Your task to perform on an android device: Look up the best rated kitchen knives on Amazon. Image 0: 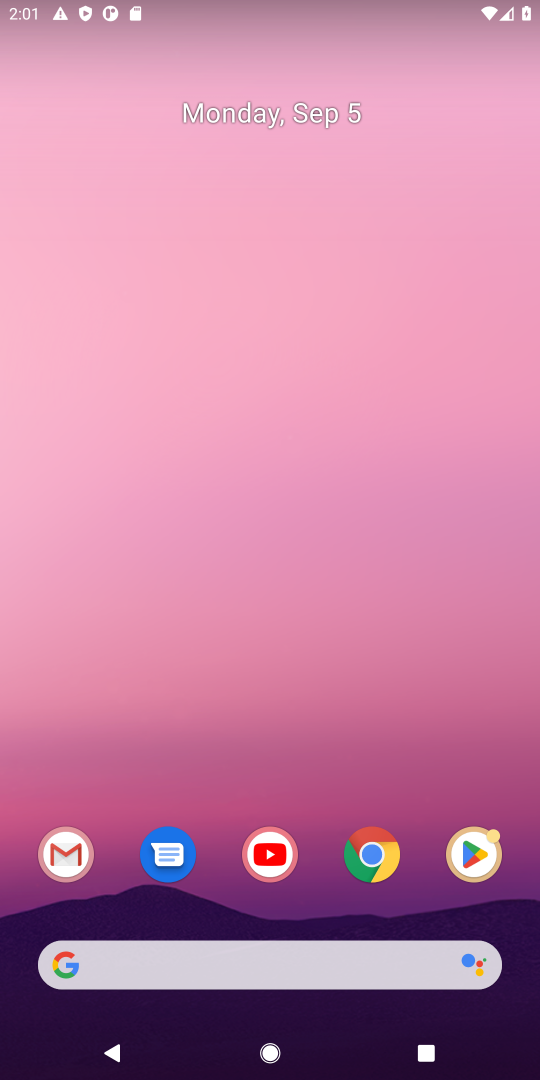
Step 0: click (359, 967)
Your task to perform on an android device: Look up the best rated kitchen knives on Amazon. Image 1: 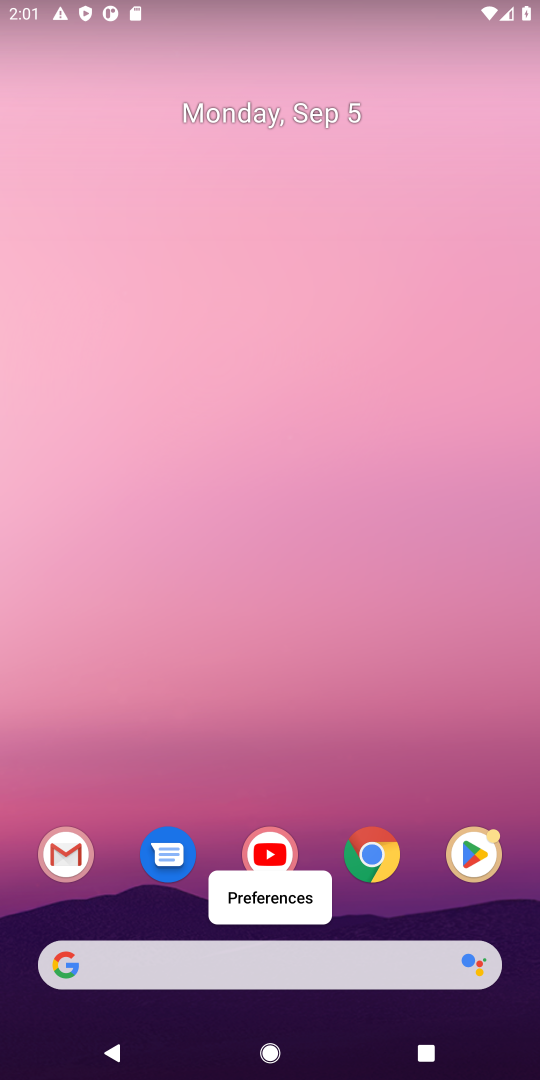
Step 1: click (124, 960)
Your task to perform on an android device: Look up the best rated kitchen knives on Amazon. Image 2: 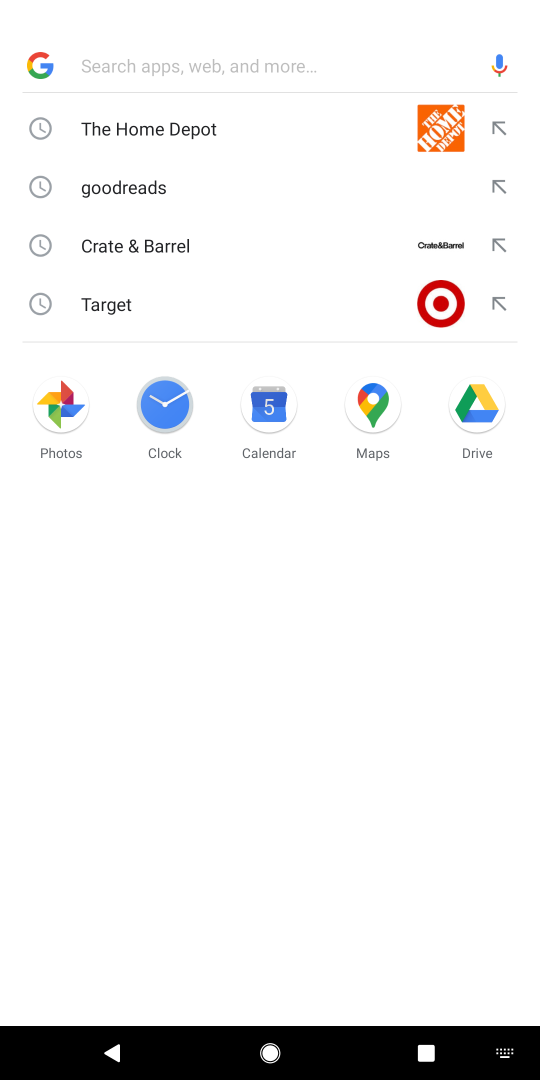
Step 2: type "amazon"
Your task to perform on an android device: Look up the best rated kitchen knives on Amazon. Image 3: 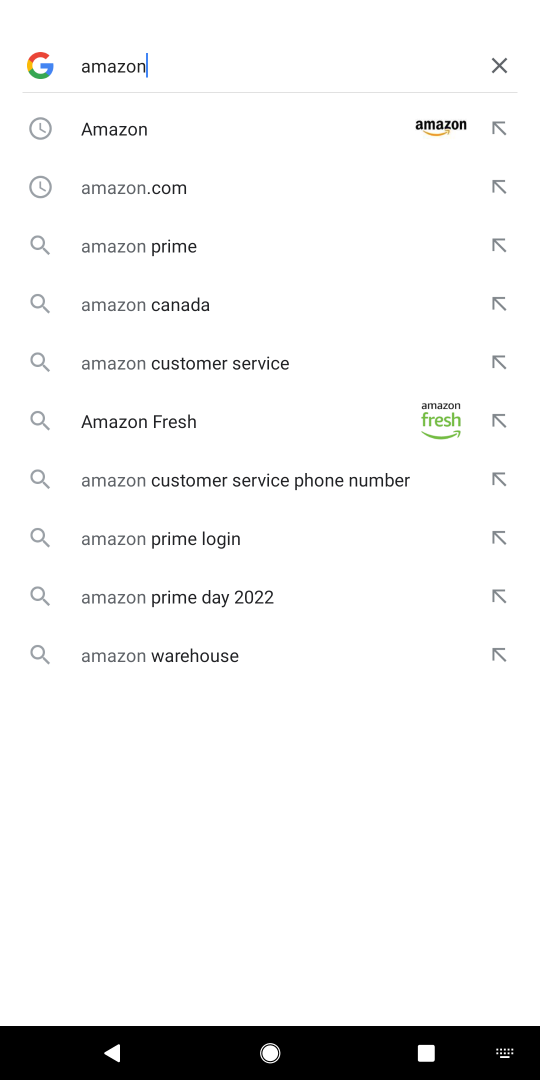
Step 3: press enter
Your task to perform on an android device: Look up the best rated kitchen knives on Amazon. Image 4: 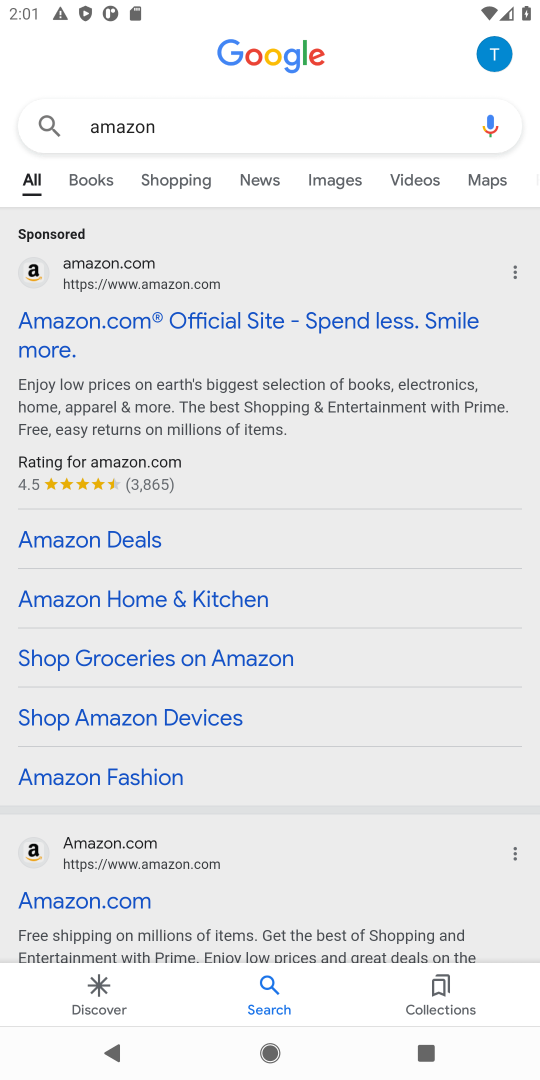
Step 4: click (196, 133)
Your task to perform on an android device: Look up the best rated kitchen knives on Amazon. Image 5: 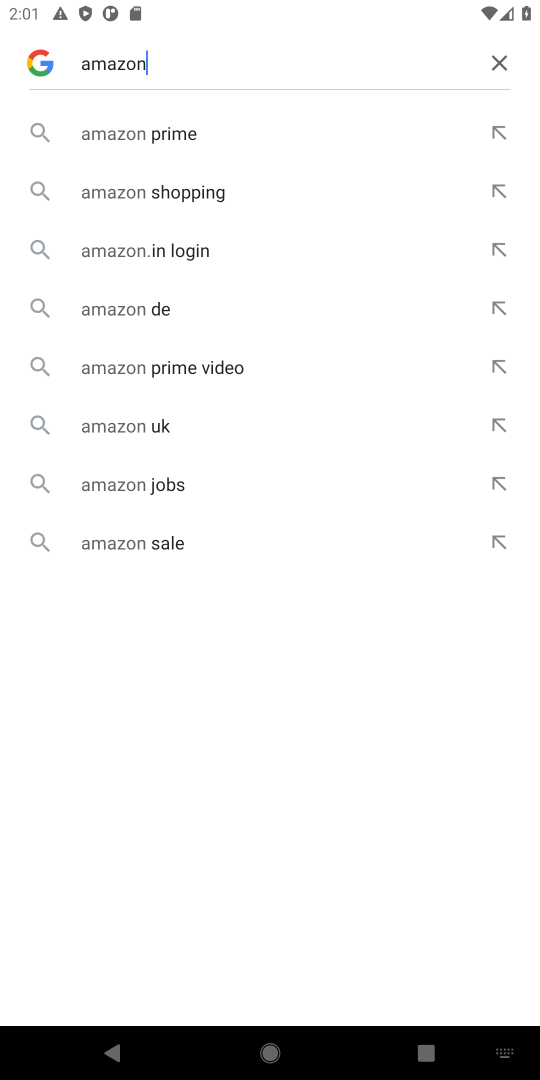
Step 5: click (178, 132)
Your task to perform on an android device: Look up the best rated kitchen knives on Amazon. Image 6: 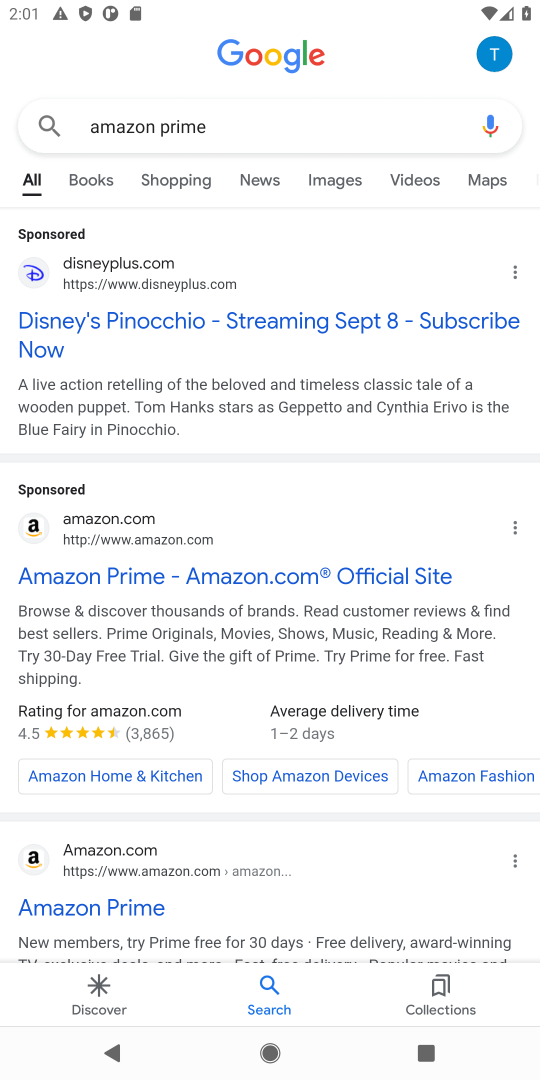
Step 6: click (234, 588)
Your task to perform on an android device: Look up the best rated kitchen knives on Amazon. Image 7: 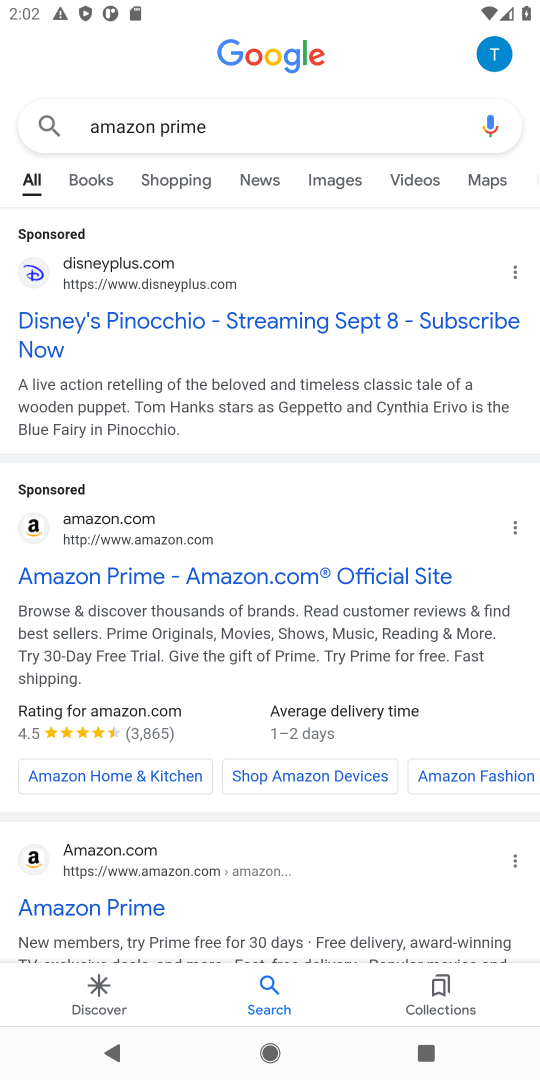
Step 7: click (249, 578)
Your task to perform on an android device: Look up the best rated kitchen knives on Amazon. Image 8: 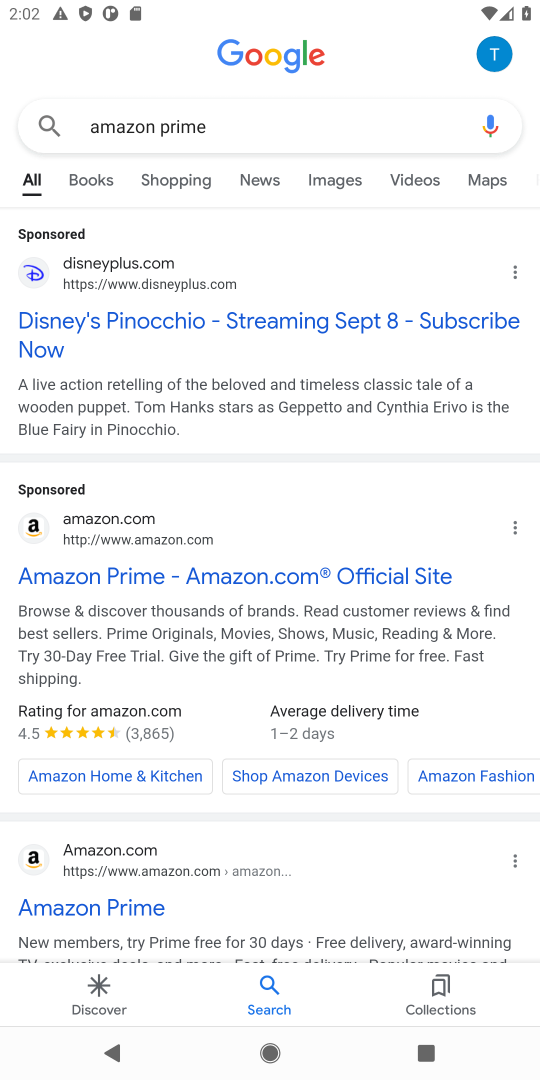
Step 8: click (329, 579)
Your task to perform on an android device: Look up the best rated kitchen knives on Amazon. Image 9: 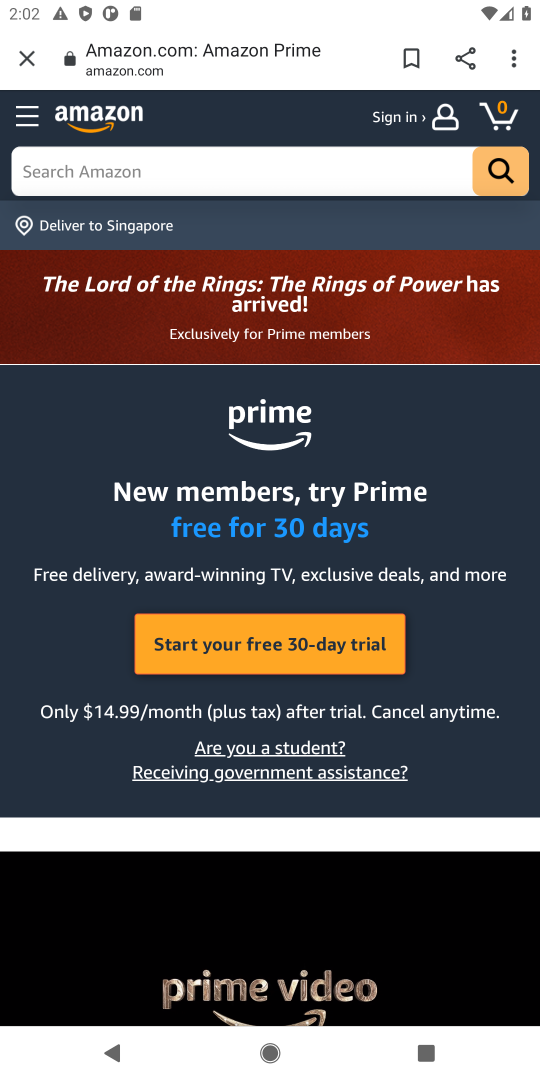
Step 9: click (244, 168)
Your task to perform on an android device: Look up the best rated kitchen knives on Amazon. Image 10: 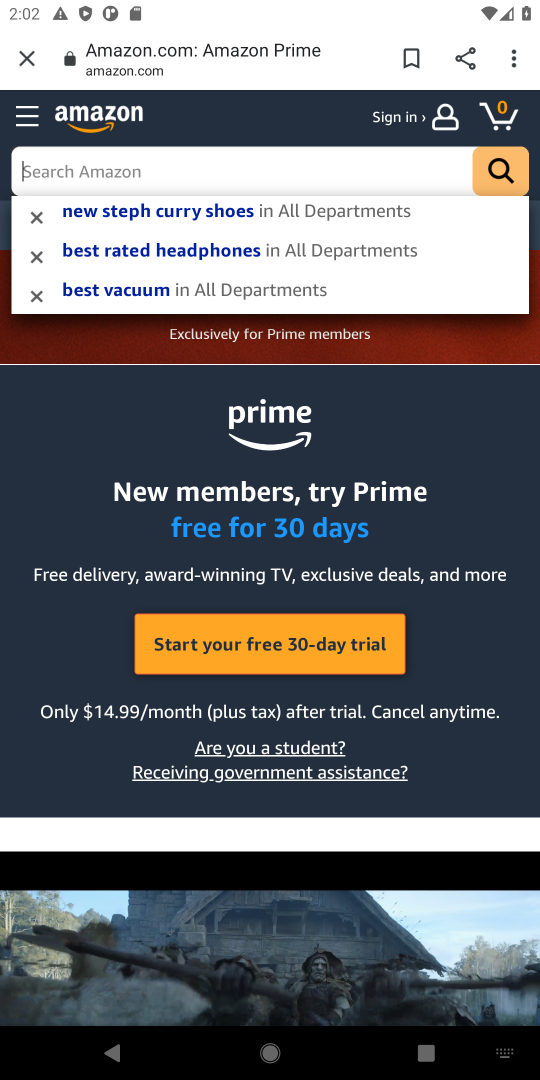
Step 10: type "best rated kitchen knives"
Your task to perform on an android device: Look up the best rated kitchen knives on Amazon. Image 11: 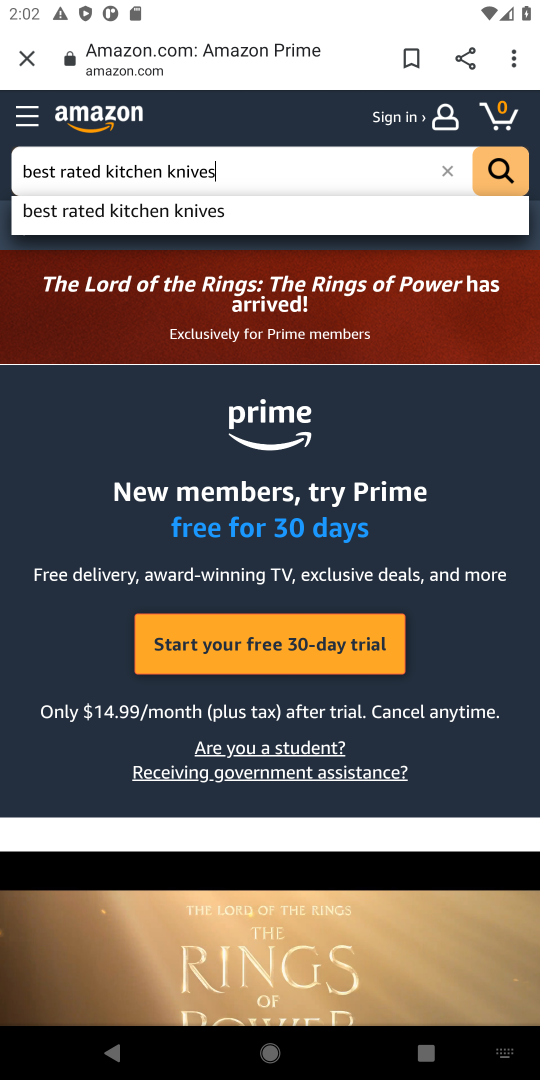
Step 11: click (267, 204)
Your task to perform on an android device: Look up the best rated kitchen knives on Amazon. Image 12: 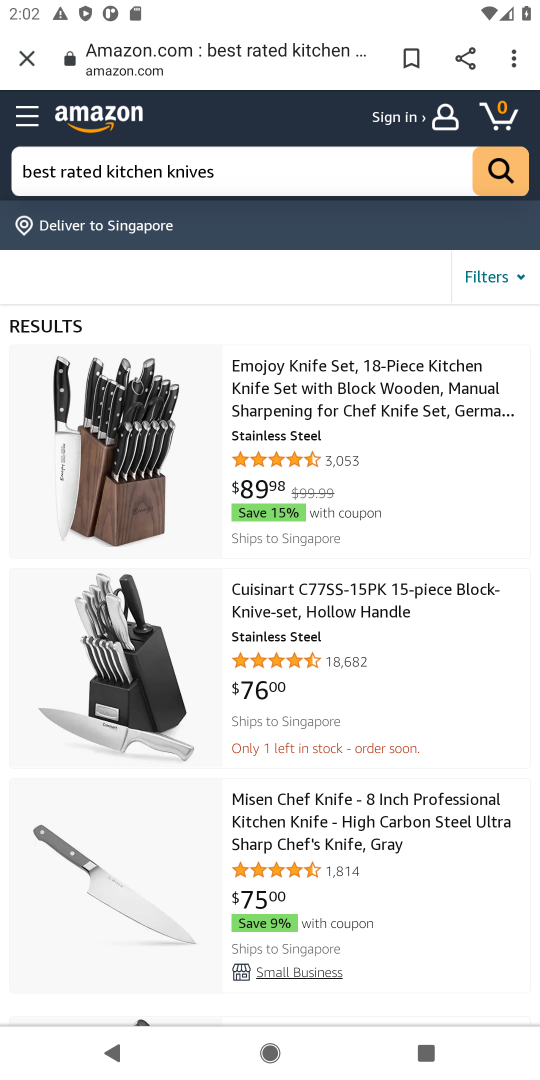
Step 12: task complete